Your task to perform on an android device: turn pop-ups off in chrome Image 0: 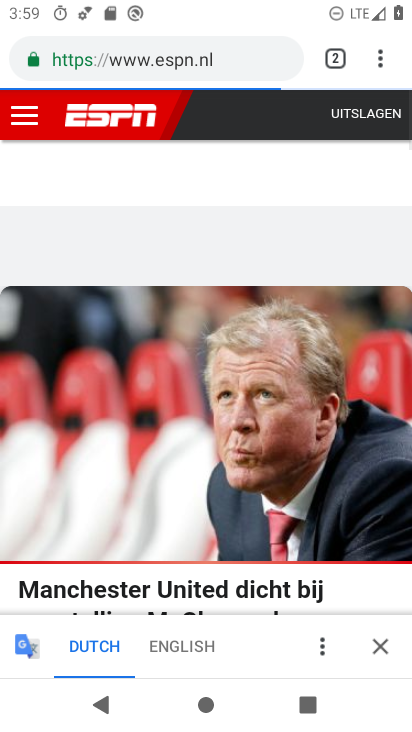
Step 0: press home button
Your task to perform on an android device: turn pop-ups off in chrome Image 1: 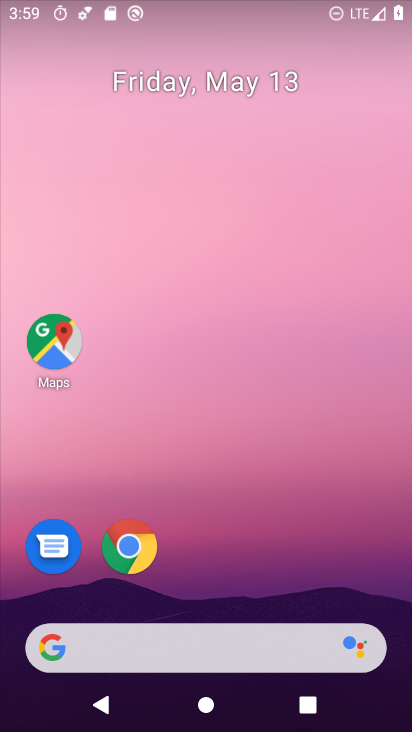
Step 1: drag from (232, 665) to (264, 208)
Your task to perform on an android device: turn pop-ups off in chrome Image 2: 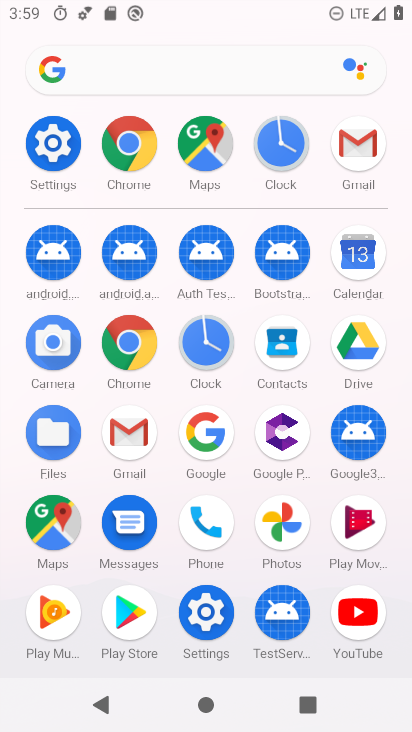
Step 2: click (142, 166)
Your task to perform on an android device: turn pop-ups off in chrome Image 3: 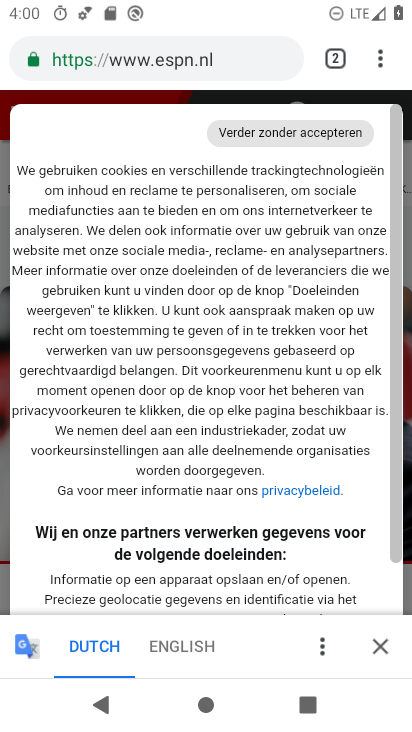
Step 3: click (387, 66)
Your task to perform on an android device: turn pop-ups off in chrome Image 4: 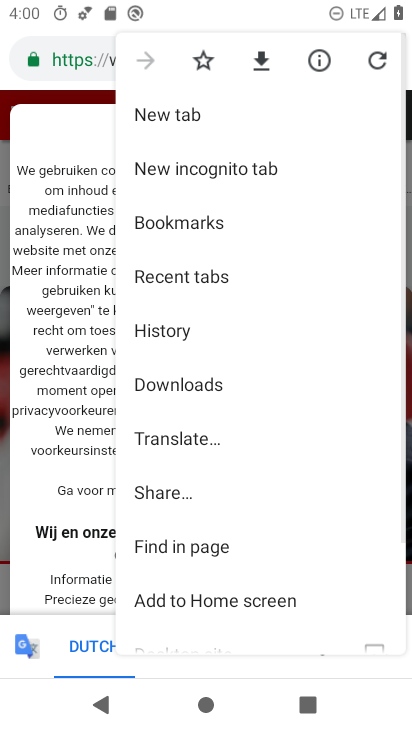
Step 4: drag from (241, 484) to (251, 165)
Your task to perform on an android device: turn pop-ups off in chrome Image 5: 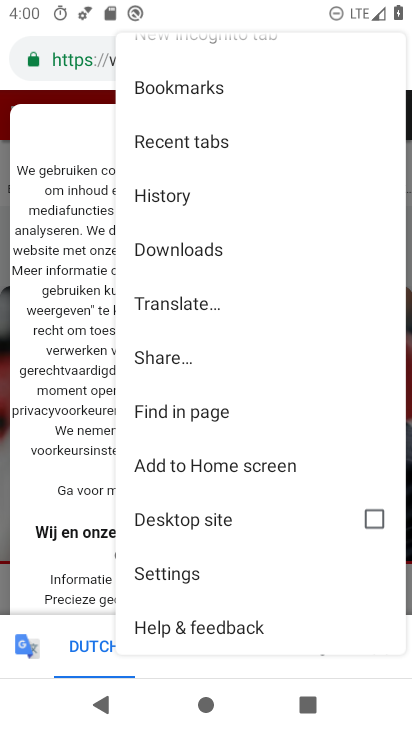
Step 5: click (216, 570)
Your task to perform on an android device: turn pop-ups off in chrome Image 6: 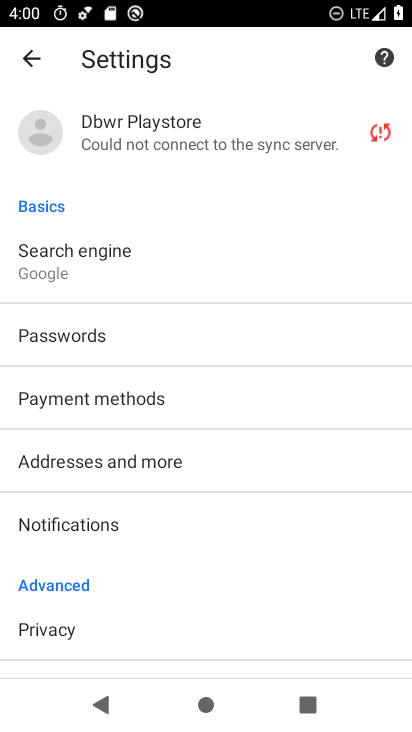
Step 6: drag from (209, 569) to (219, 443)
Your task to perform on an android device: turn pop-ups off in chrome Image 7: 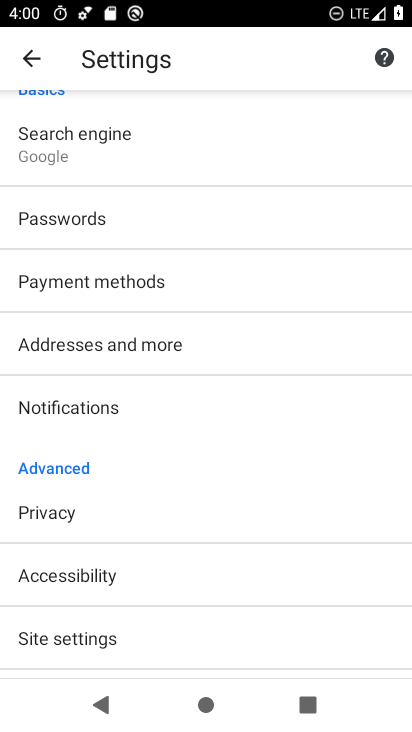
Step 7: drag from (197, 571) to (217, 444)
Your task to perform on an android device: turn pop-ups off in chrome Image 8: 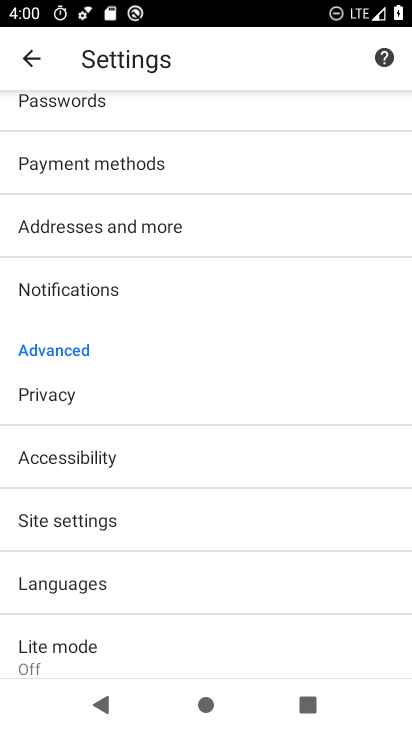
Step 8: click (137, 532)
Your task to perform on an android device: turn pop-ups off in chrome Image 9: 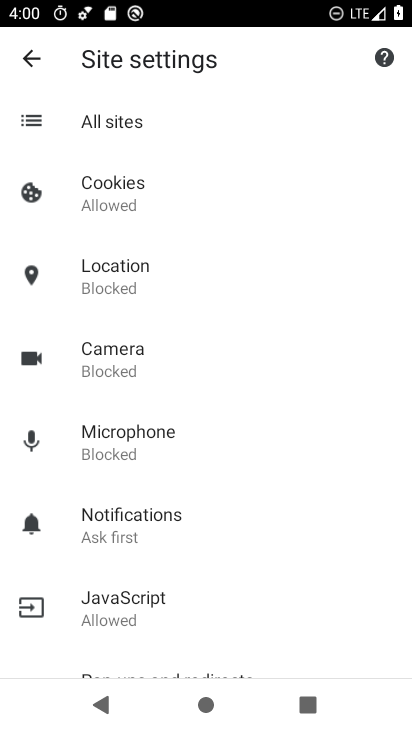
Step 9: drag from (229, 459) to (280, 182)
Your task to perform on an android device: turn pop-ups off in chrome Image 10: 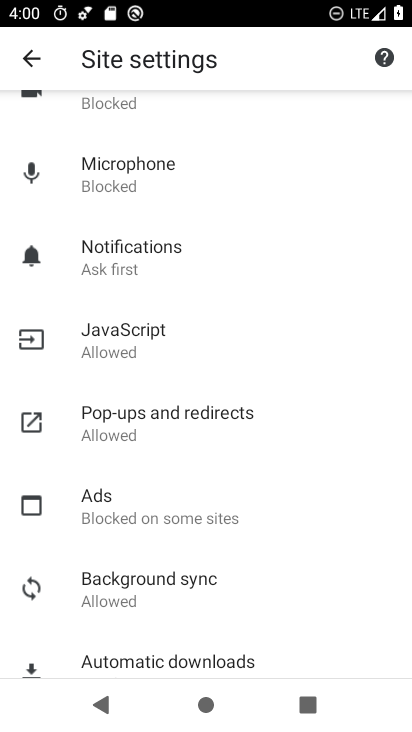
Step 10: click (211, 422)
Your task to perform on an android device: turn pop-ups off in chrome Image 11: 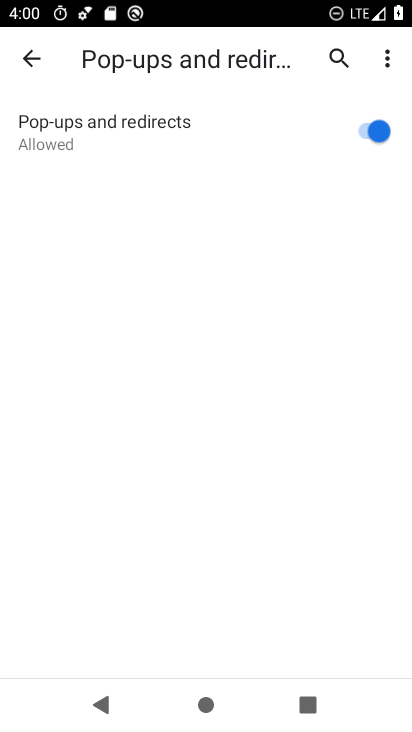
Step 11: click (376, 125)
Your task to perform on an android device: turn pop-ups off in chrome Image 12: 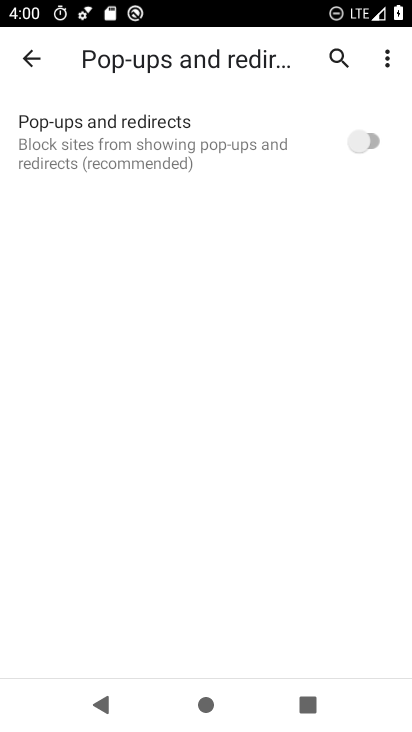
Step 12: task complete